Your task to perform on an android device: Is it going to rain tomorrow? Image 0: 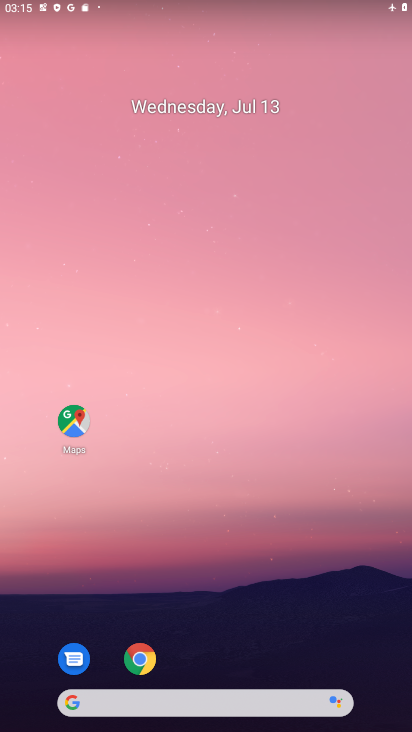
Step 0: click (244, 704)
Your task to perform on an android device: Is it going to rain tomorrow? Image 1: 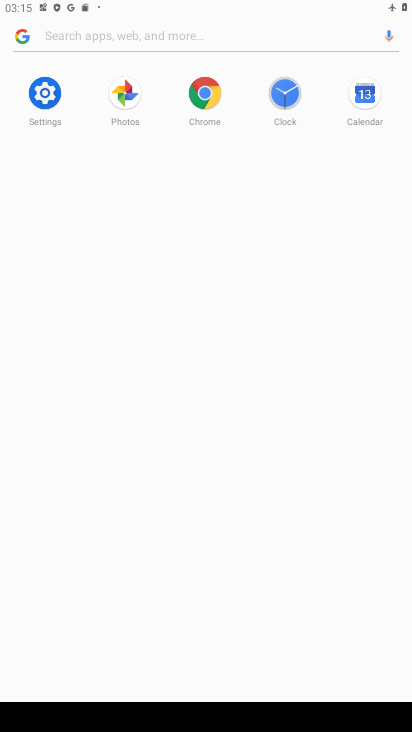
Step 1: type "weather"
Your task to perform on an android device: Is it going to rain tomorrow? Image 2: 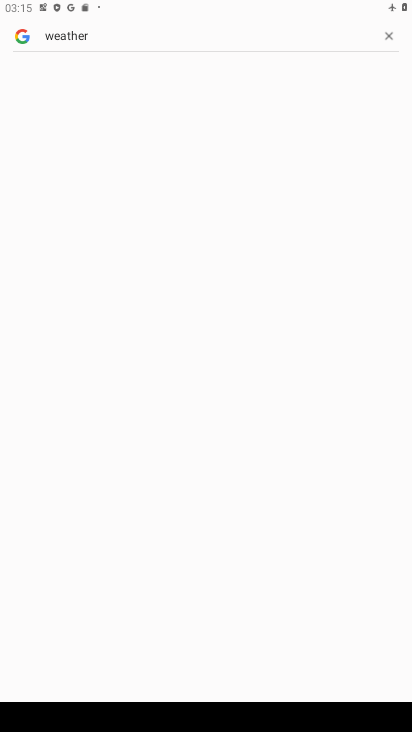
Step 2: task complete